Your task to perform on an android device: Do I have any events this weekend? Image 0: 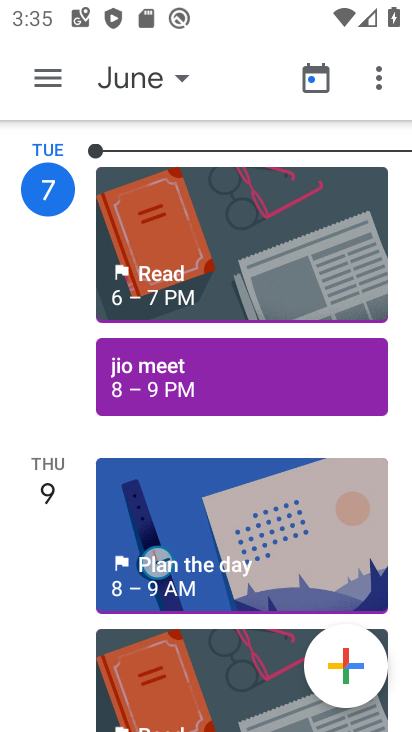
Step 0: press home button
Your task to perform on an android device: Do I have any events this weekend? Image 1: 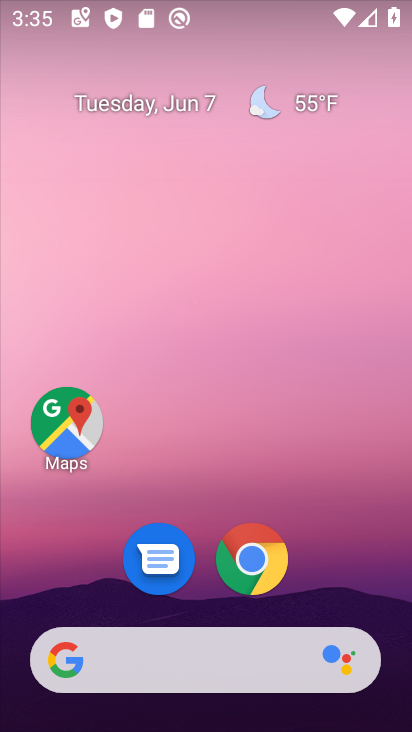
Step 1: drag from (205, 715) to (213, 217)
Your task to perform on an android device: Do I have any events this weekend? Image 2: 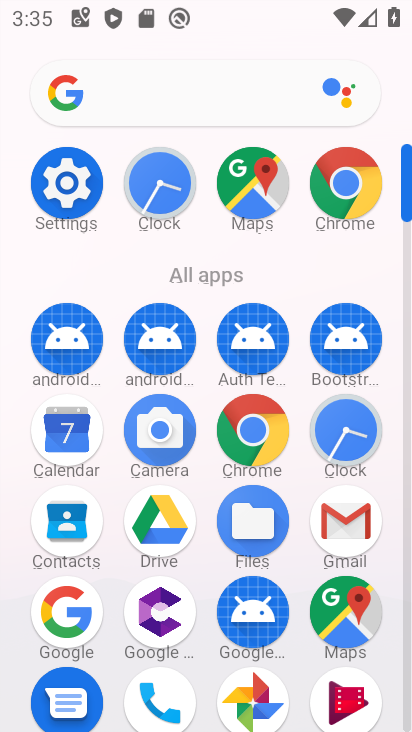
Step 2: click (58, 429)
Your task to perform on an android device: Do I have any events this weekend? Image 3: 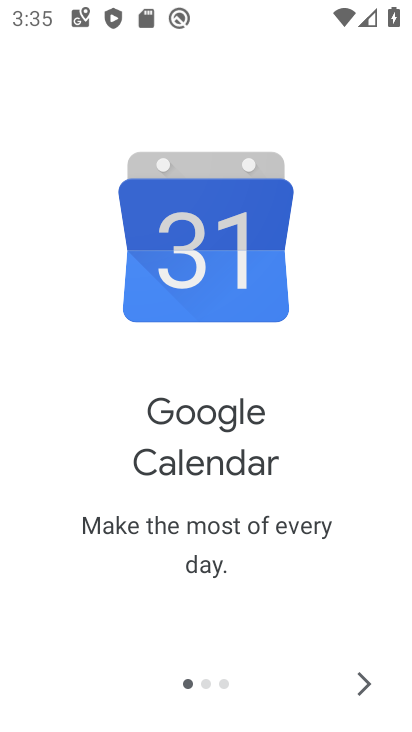
Step 3: click (364, 685)
Your task to perform on an android device: Do I have any events this weekend? Image 4: 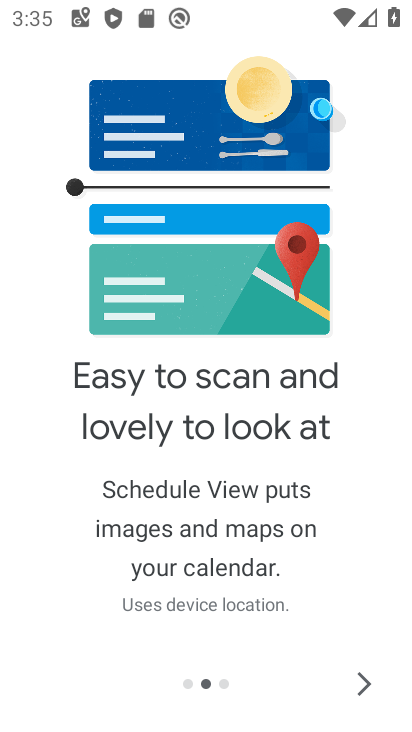
Step 4: click (364, 685)
Your task to perform on an android device: Do I have any events this weekend? Image 5: 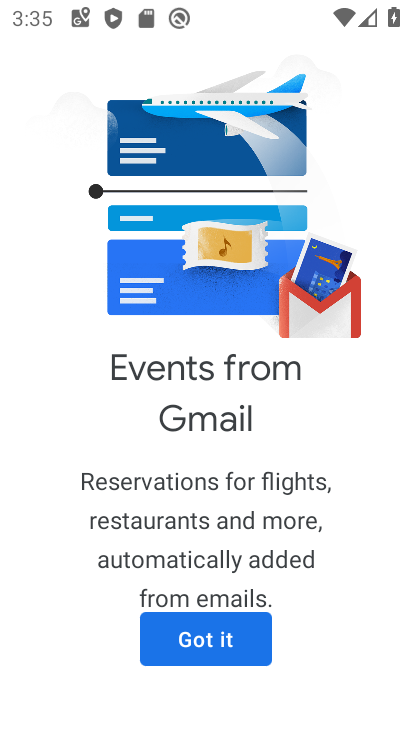
Step 5: click (209, 628)
Your task to perform on an android device: Do I have any events this weekend? Image 6: 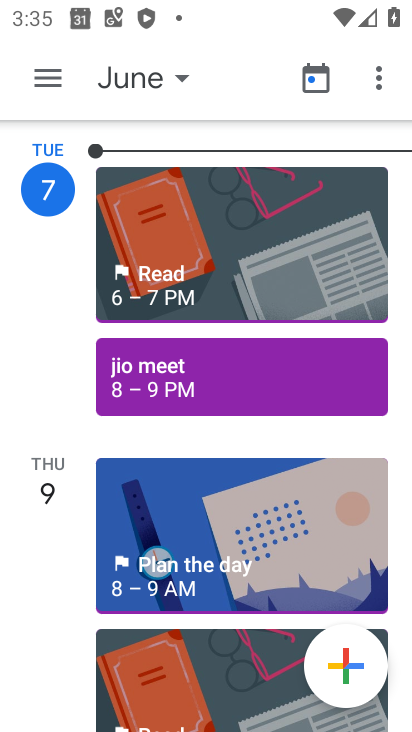
Step 6: click (179, 79)
Your task to perform on an android device: Do I have any events this weekend? Image 7: 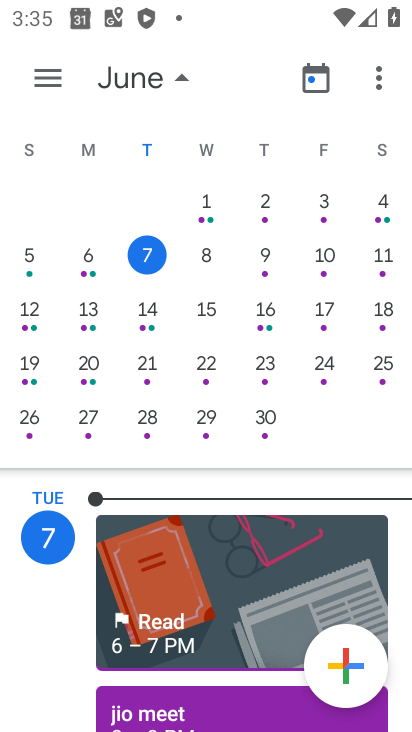
Step 7: click (390, 253)
Your task to perform on an android device: Do I have any events this weekend? Image 8: 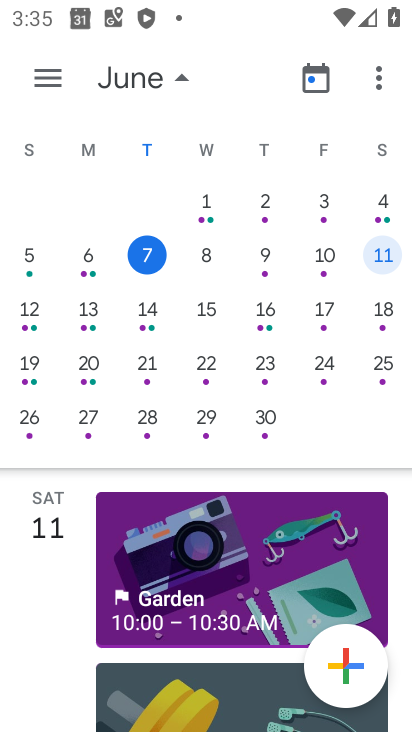
Step 8: click (387, 250)
Your task to perform on an android device: Do I have any events this weekend? Image 9: 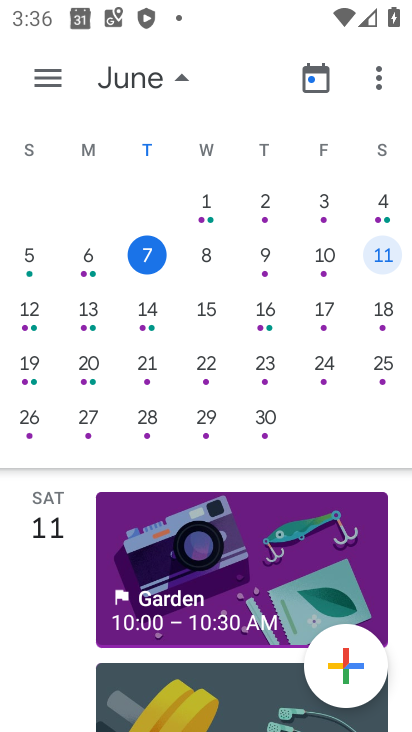
Step 9: click (378, 246)
Your task to perform on an android device: Do I have any events this weekend? Image 10: 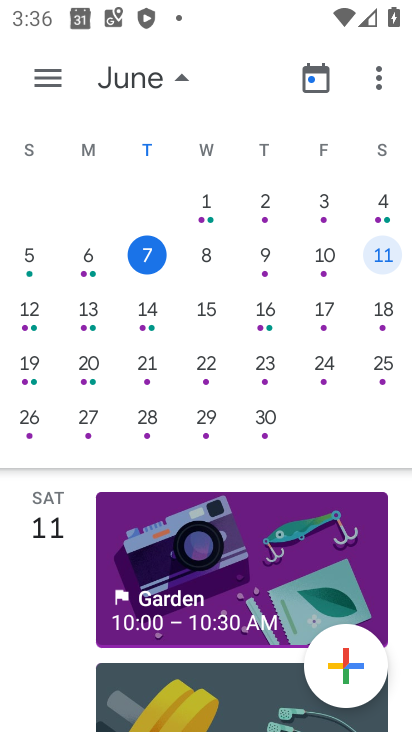
Step 10: click (380, 246)
Your task to perform on an android device: Do I have any events this weekend? Image 11: 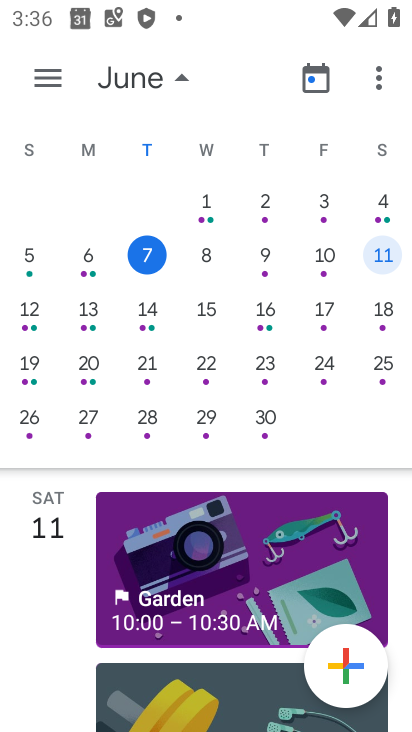
Step 11: click (380, 249)
Your task to perform on an android device: Do I have any events this weekend? Image 12: 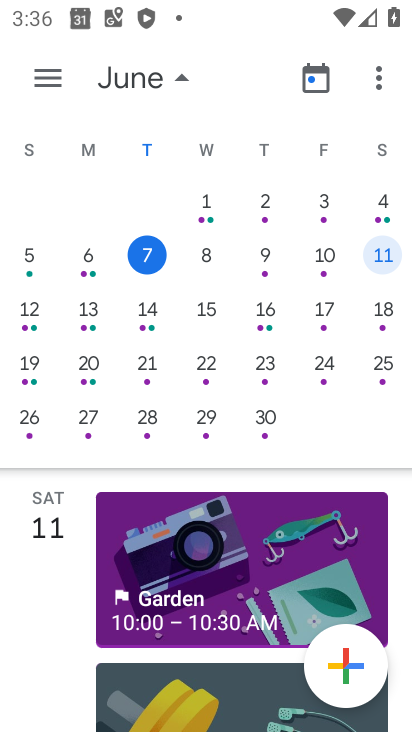
Step 12: click (380, 255)
Your task to perform on an android device: Do I have any events this weekend? Image 13: 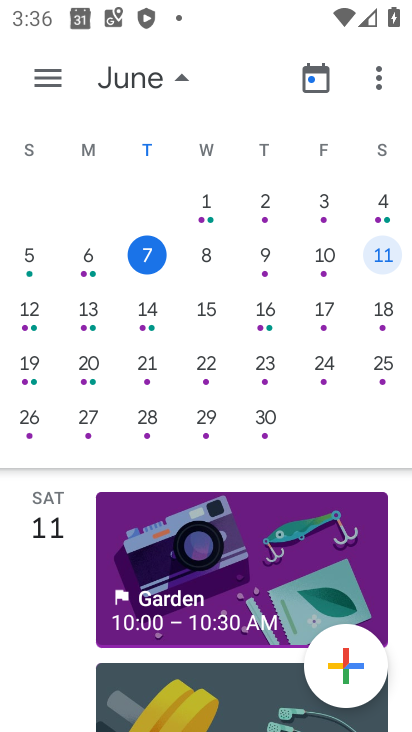
Step 13: click (176, 79)
Your task to perform on an android device: Do I have any events this weekend? Image 14: 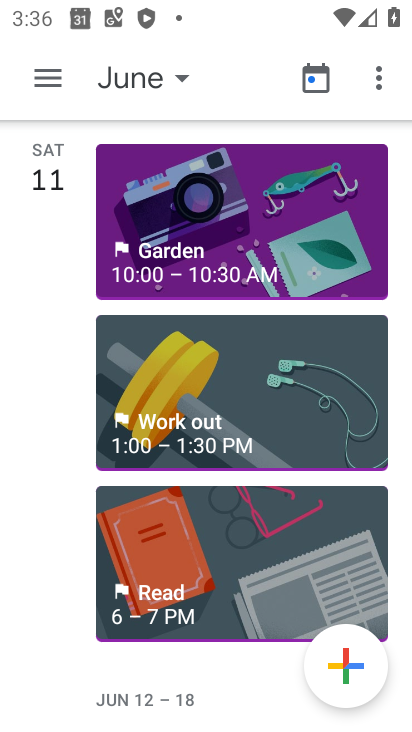
Step 14: task complete